Your task to perform on an android device: Search for seafood restaurants on Google Maps Image 0: 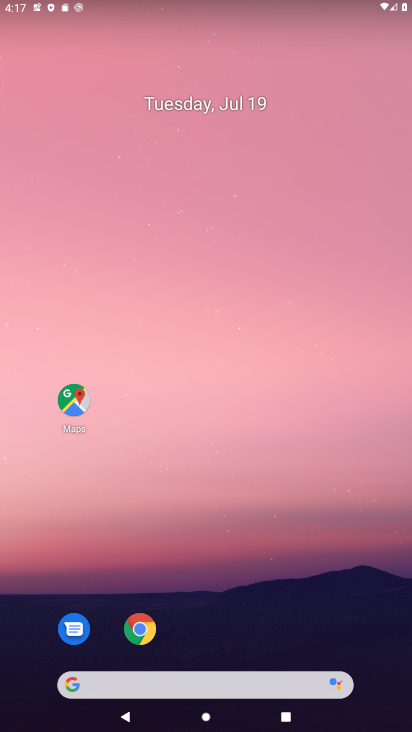
Step 0: click (76, 412)
Your task to perform on an android device: Search for seafood restaurants on Google Maps Image 1: 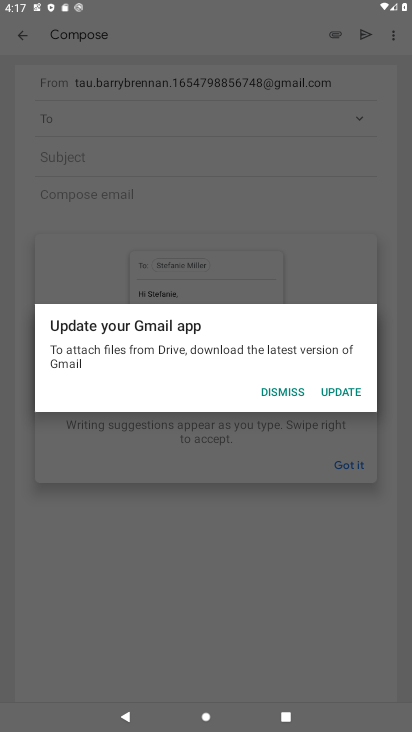
Step 1: press home button
Your task to perform on an android device: Search for seafood restaurants on Google Maps Image 2: 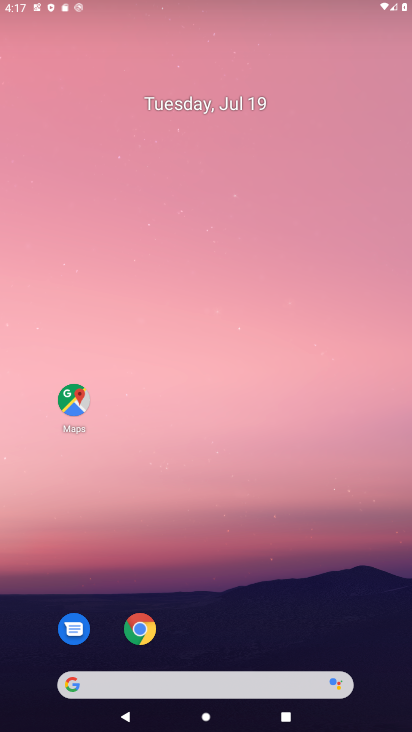
Step 2: drag from (165, 685) to (166, 272)
Your task to perform on an android device: Search for seafood restaurants on Google Maps Image 3: 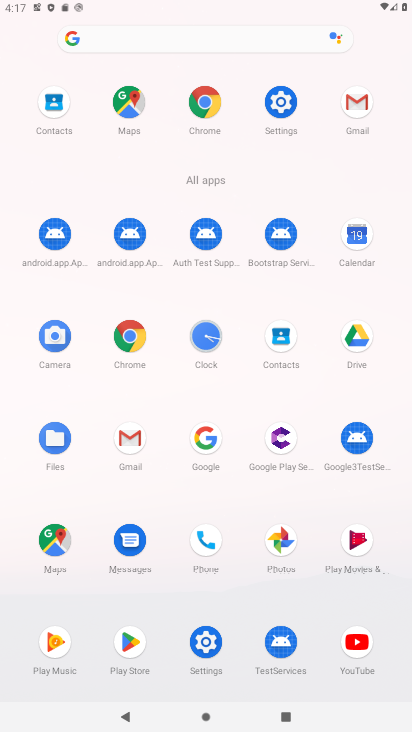
Step 3: click (52, 544)
Your task to perform on an android device: Search for seafood restaurants on Google Maps Image 4: 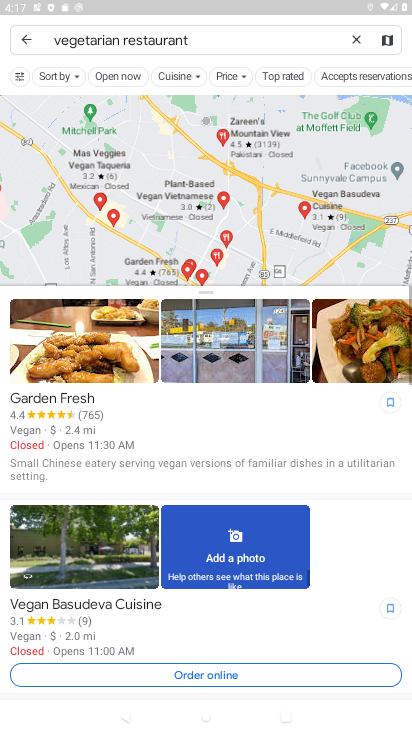
Step 4: click (350, 41)
Your task to perform on an android device: Search for seafood restaurants on Google Maps Image 5: 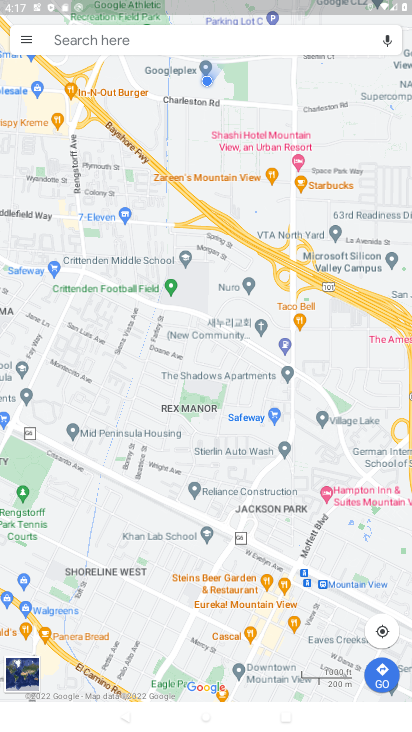
Step 5: click (136, 41)
Your task to perform on an android device: Search for seafood restaurants on Google Maps Image 6: 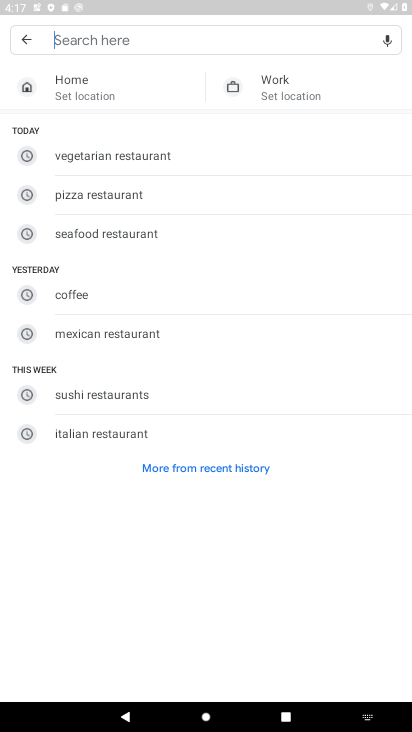
Step 6: click (72, 236)
Your task to perform on an android device: Search for seafood restaurants on Google Maps Image 7: 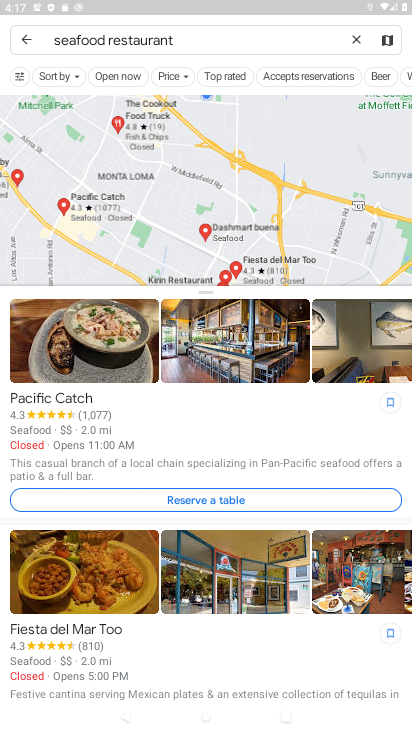
Step 7: task complete